Your task to perform on an android device: turn pop-ups off in chrome Image 0: 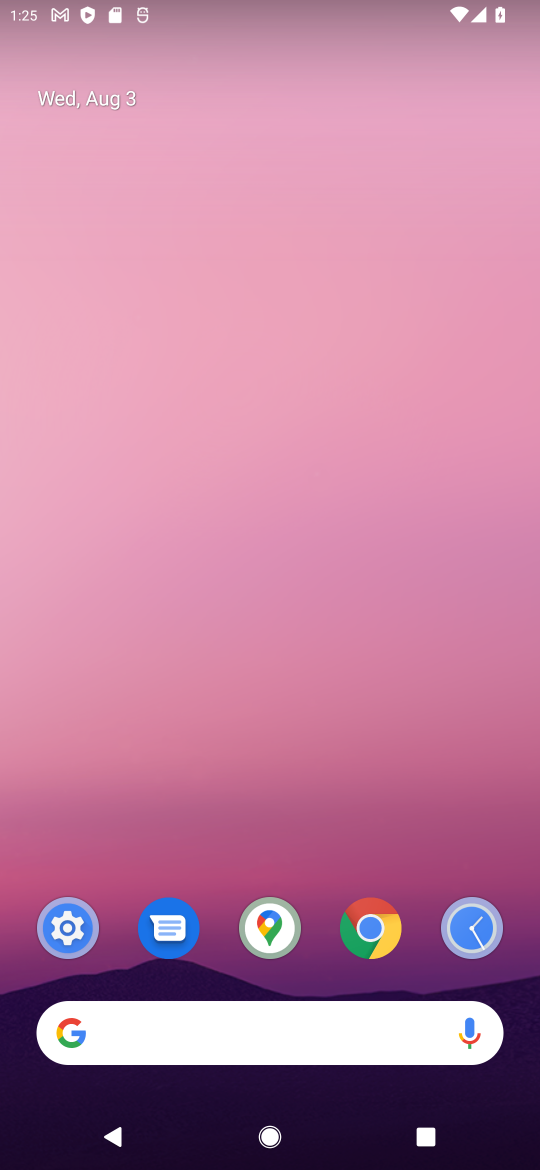
Step 0: click (379, 916)
Your task to perform on an android device: turn pop-ups off in chrome Image 1: 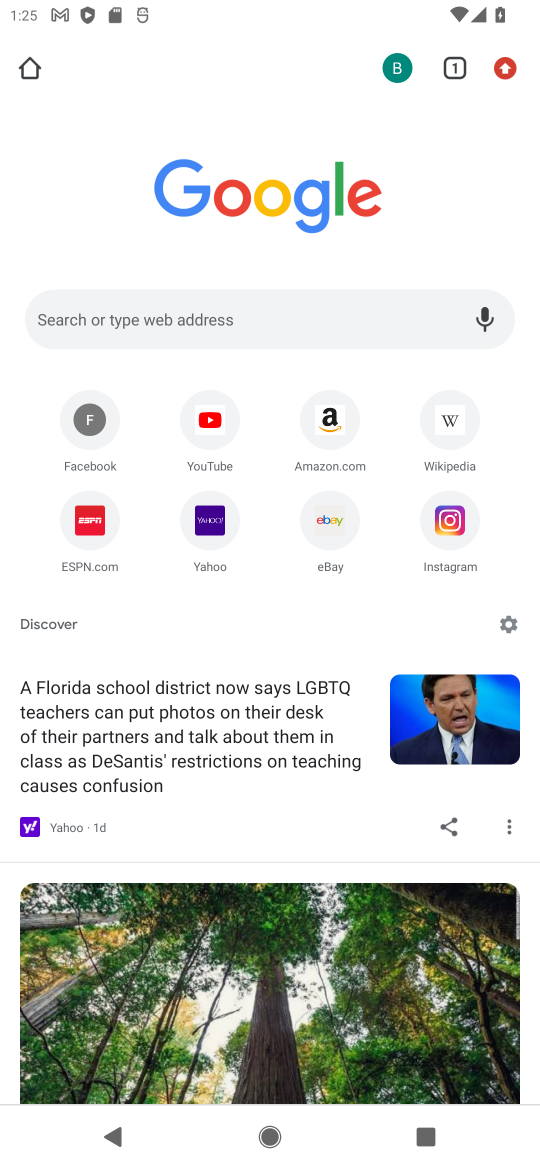
Step 1: click (502, 59)
Your task to perform on an android device: turn pop-ups off in chrome Image 2: 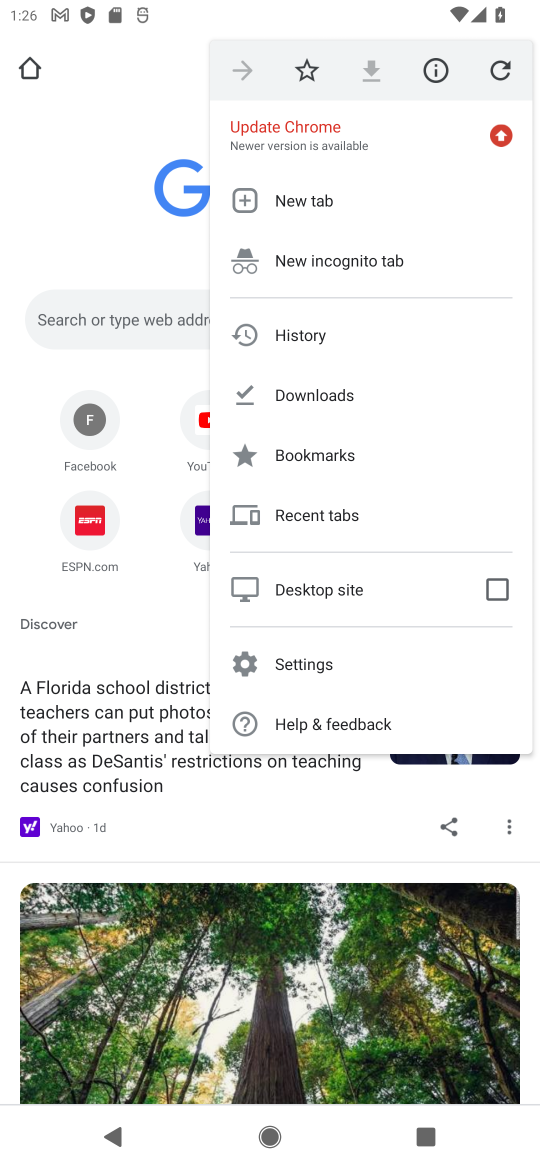
Step 2: click (304, 661)
Your task to perform on an android device: turn pop-ups off in chrome Image 3: 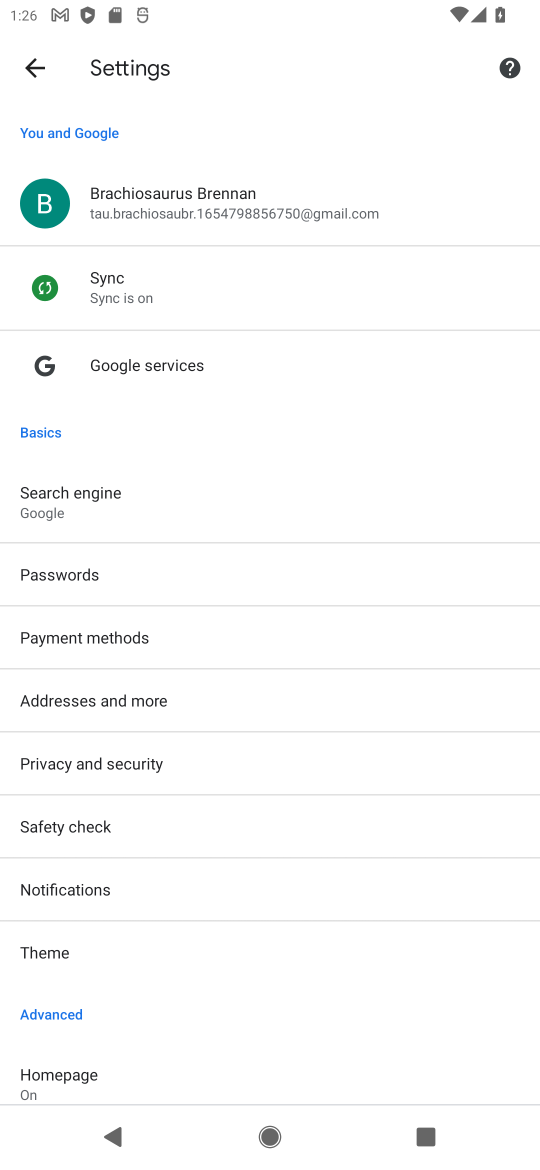
Step 3: drag from (254, 757) to (251, 250)
Your task to perform on an android device: turn pop-ups off in chrome Image 4: 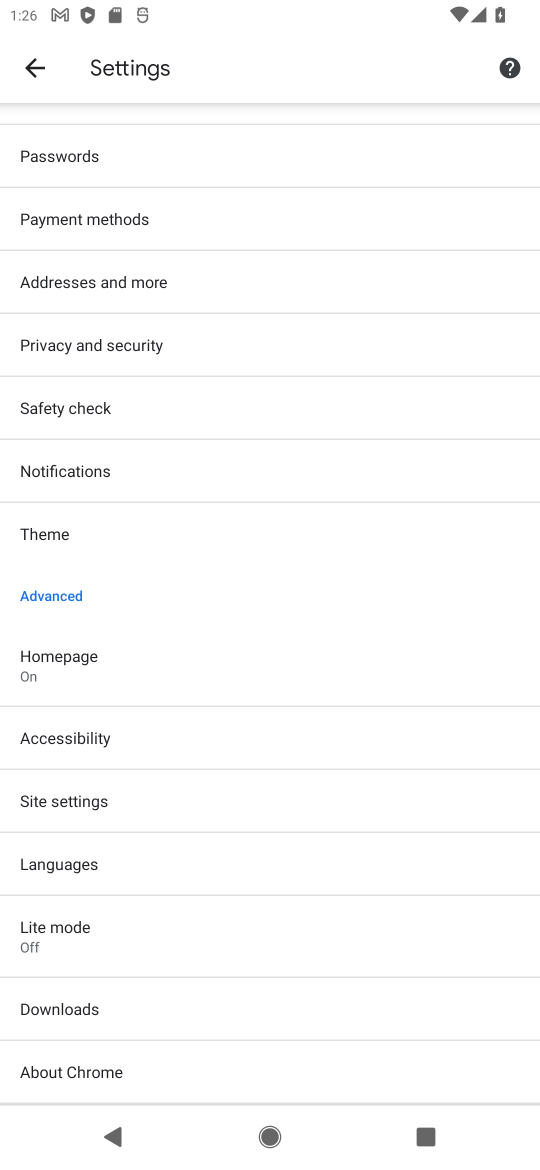
Step 4: click (83, 794)
Your task to perform on an android device: turn pop-ups off in chrome Image 5: 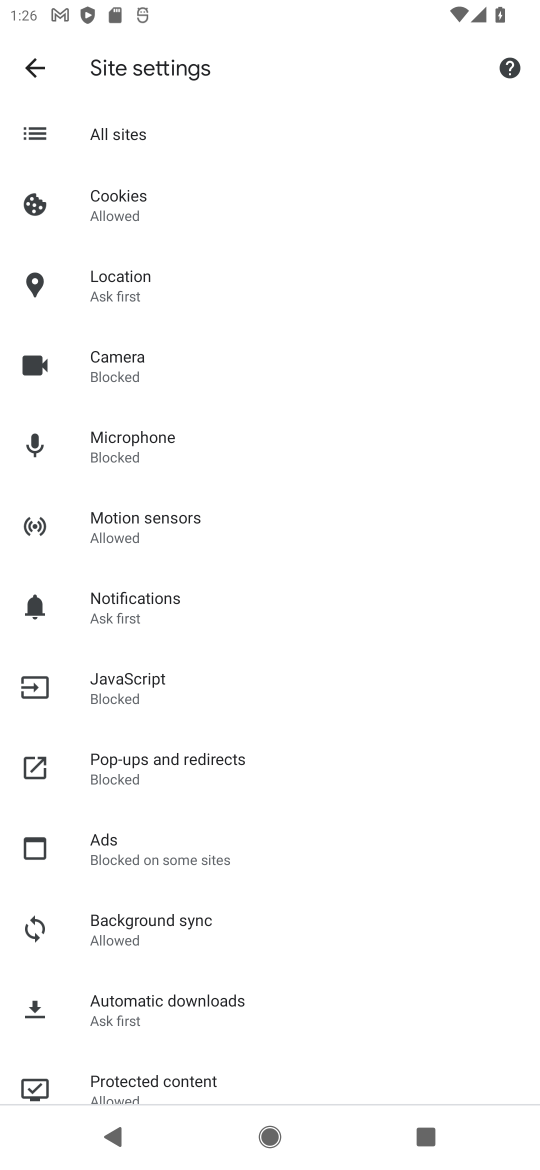
Step 5: click (204, 763)
Your task to perform on an android device: turn pop-ups off in chrome Image 6: 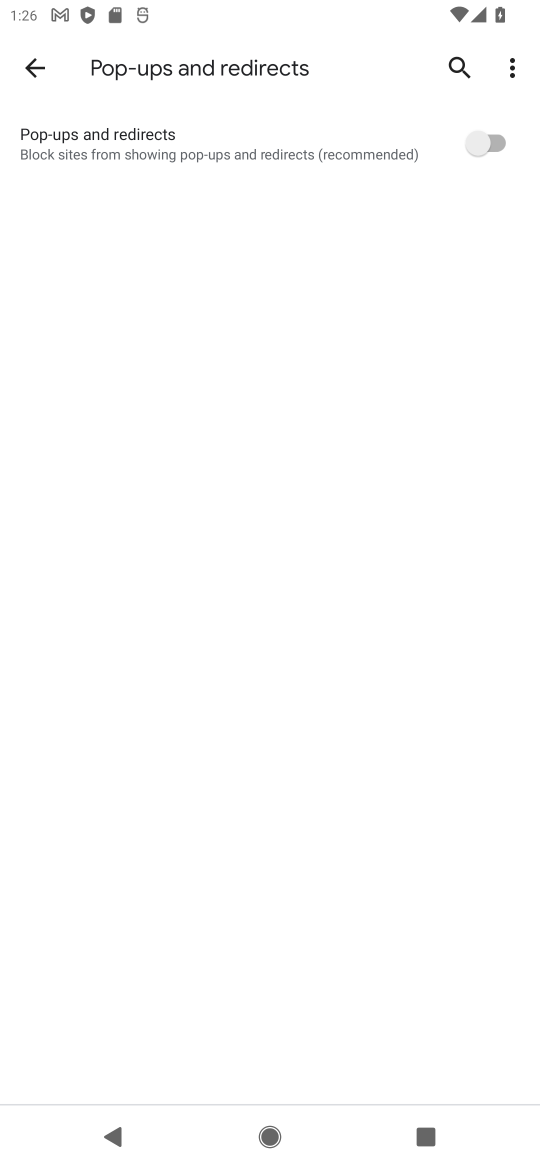
Step 6: task complete